Your task to perform on an android device: Open calendar and show me the fourth week of next month Image 0: 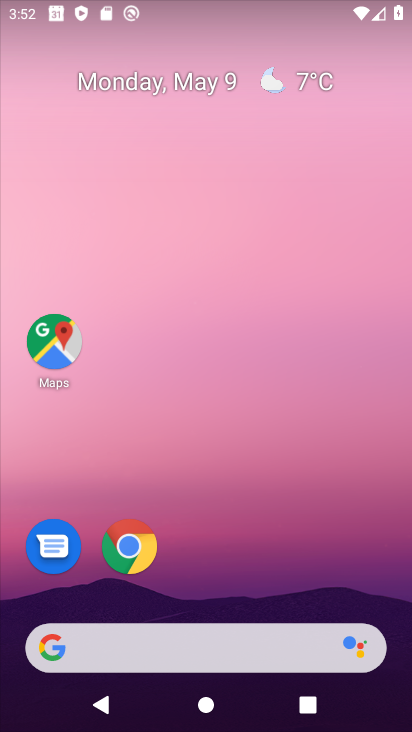
Step 0: drag from (174, 594) to (210, 435)
Your task to perform on an android device: Open calendar and show me the fourth week of next month Image 1: 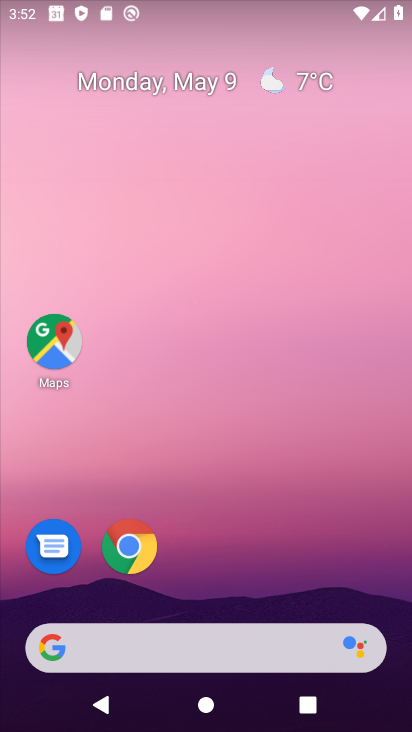
Step 1: drag from (226, 578) to (236, 227)
Your task to perform on an android device: Open calendar and show me the fourth week of next month Image 2: 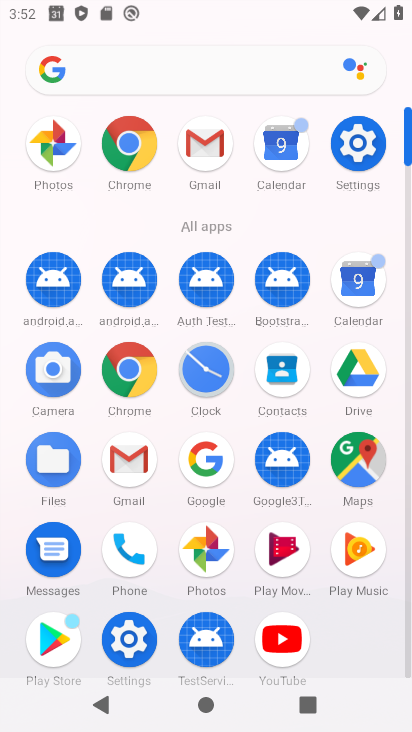
Step 2: click (352, 290)
Your task to perform on an android device: Open calendar and show me the fourth week of next month Image 3: 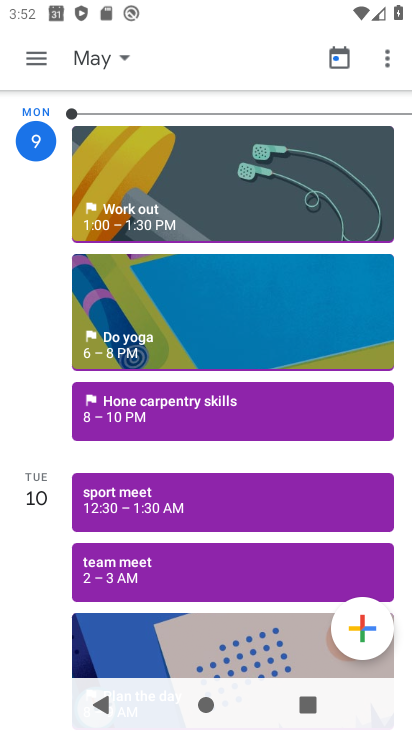
Step 3: click (37, 56)
Your task to perform on an android device: Open calendar and show me the fourth week of next month Image 4: 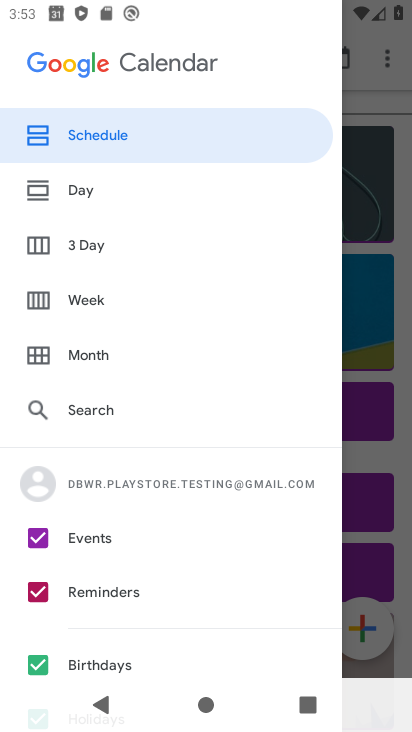
Step 4: drag from (170, 617) to (209, 486)
Your task to perform on an android device: Open calendar and show me the fourth week of next month Image 5: 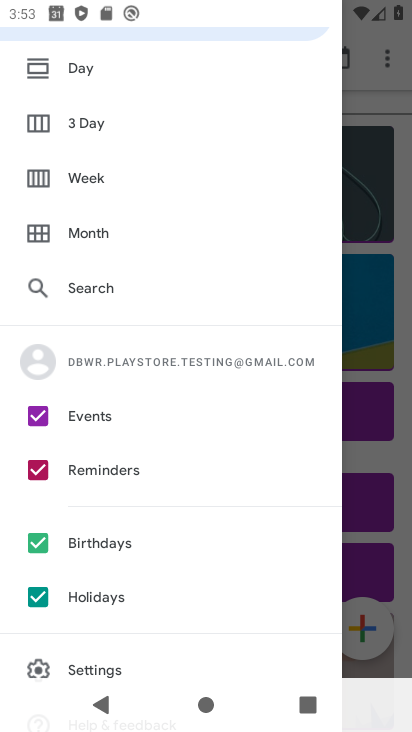
Step 5: drag from (176, 618) to (198, 511)
Your task to perform on an android device: Open calendar and show me the fourth week of next month Image 6: 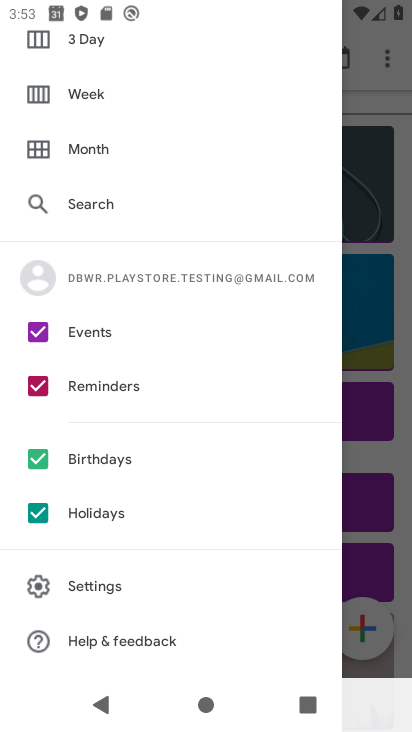
Step 6: drag from (184, 556) to (161, 636)
Your task to perform on an android device: Open calendar and show me the fourth week of next month Image 7: 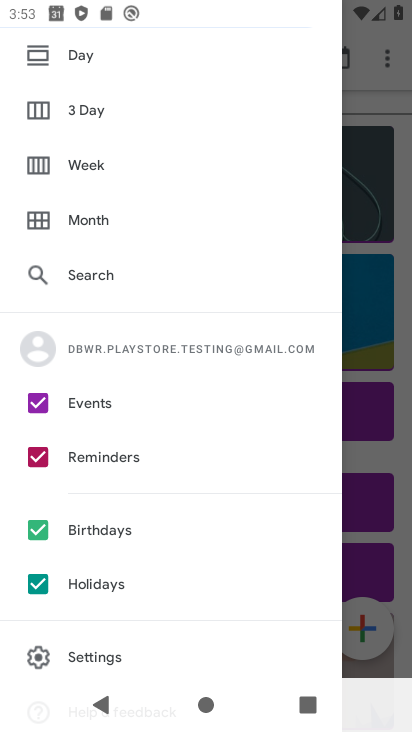
Step 7: click (156, 174)
Your task to perform on an android device: Open calendar and show me the fourth week of next month Image 8: 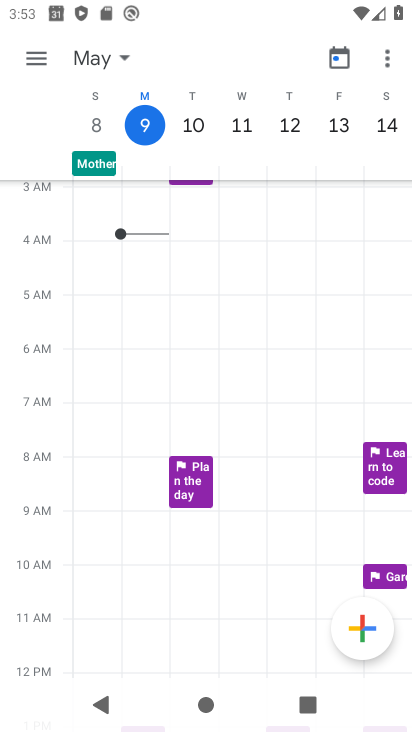
Step 8: click (114, 67)
Your task to perform on an android device: Open calendar and show me the fourth week of next month Image 9: 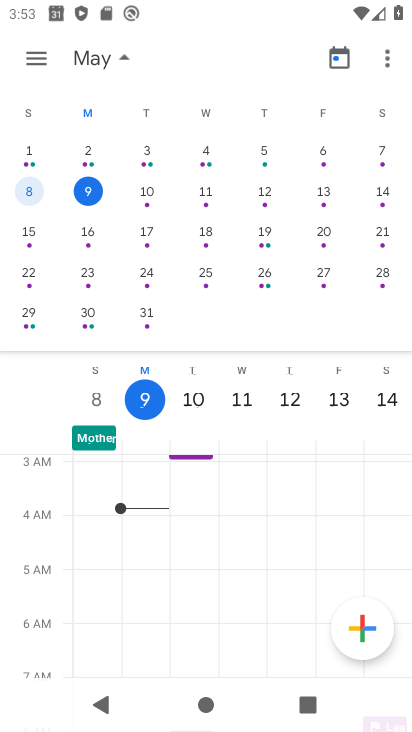
Step 9: drag from (380, 301) to (2, 311)
Your task to perform on an android device: Open calendar and show me the fourth week of next month Image 10: 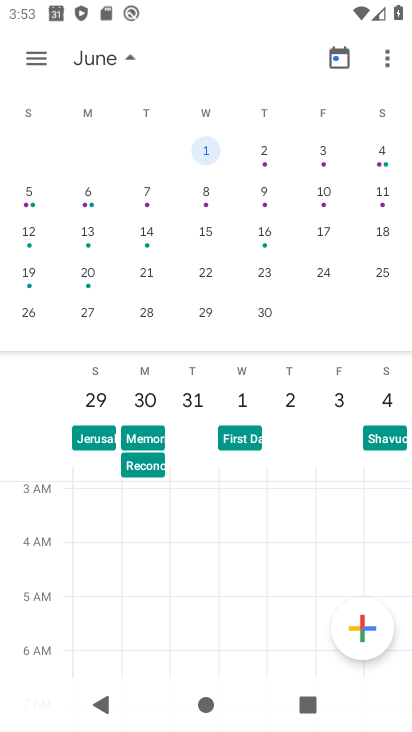
Step 10: click (34, 313)
Your task to perform on an android device: Open calendar and show me the fourth week of next month Image 11: 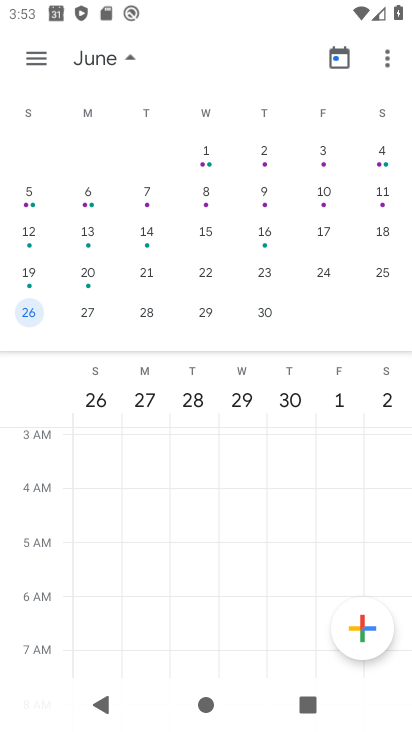
Step 11: click (135, 58)
Your task to perform on an android device: Open calendar and show me the fourth week of next month Image 12: 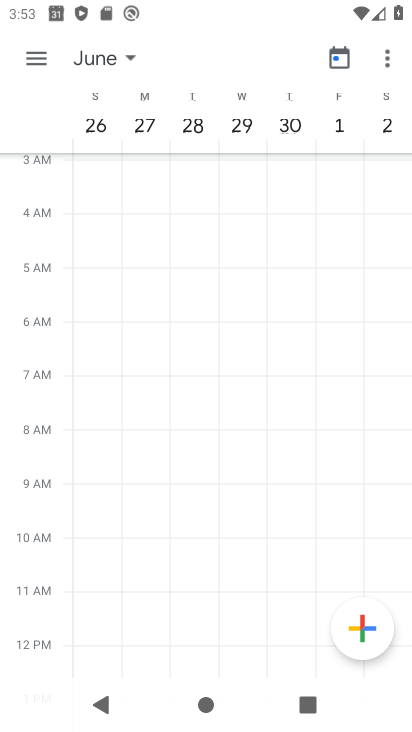
Step 12: task complete